Your task to perform on an android device: Open eBay Image 0: 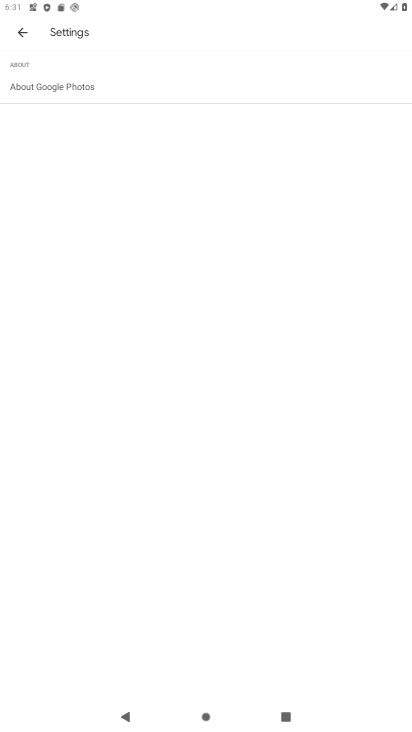
Step 0: press home button
Your task to perform on an android device: Open eBay Image 1: 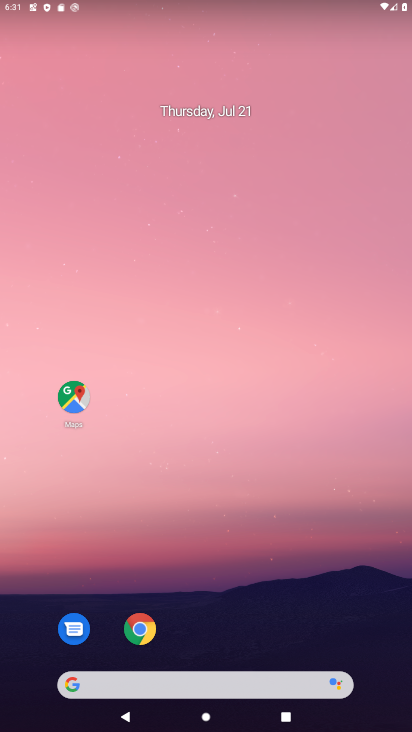
Step 1: click (139, 630)
Your task to perform on an android device: Open eBay Image 2: 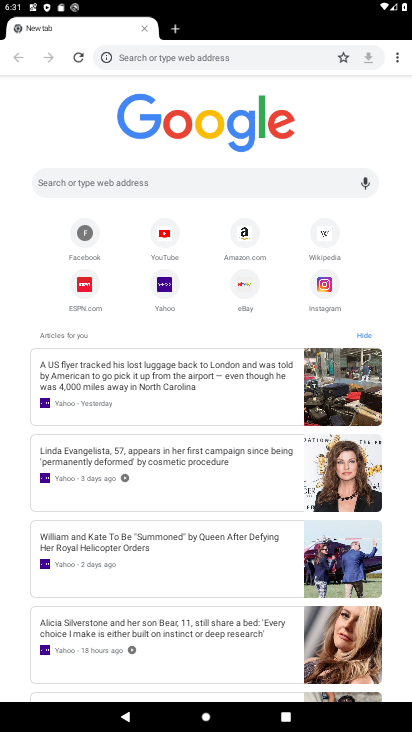
Step 2: click (247, 284)
Your task to perform on an android device: Open eBay Image 3: 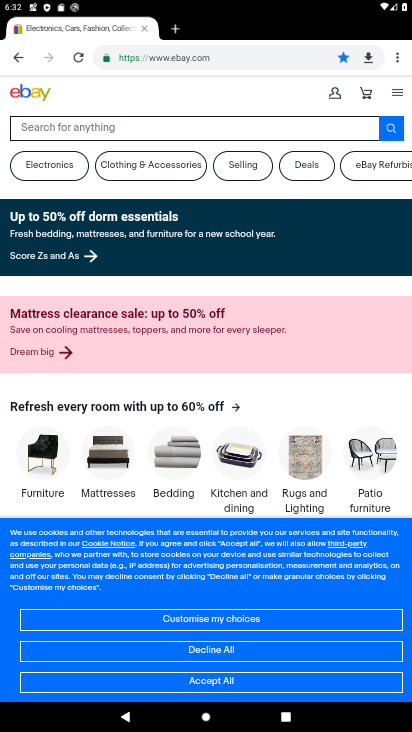
Step 3: task complete